Your task to perform on an android device: make emails show in primary in the gmail app Image 0: 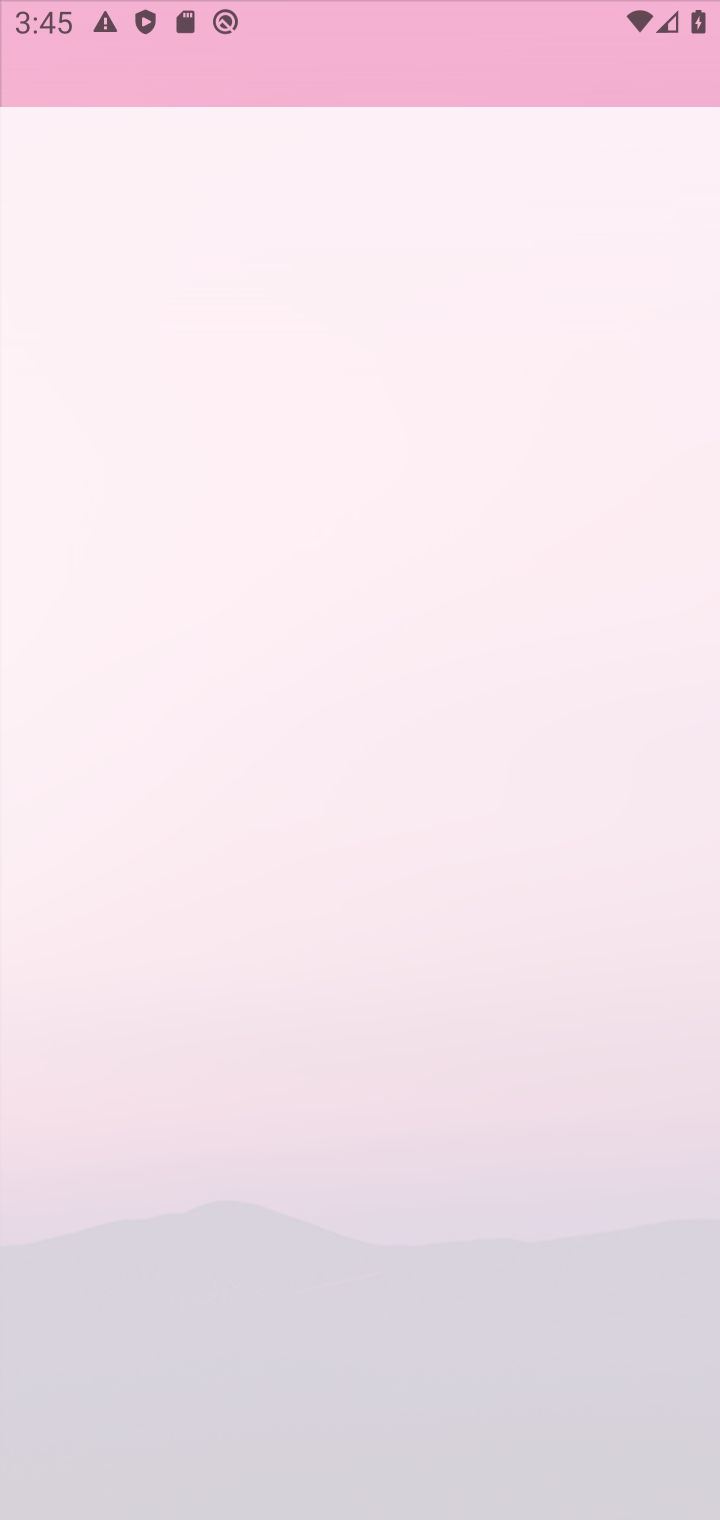
Step 0: press home button
Your task to perform on an android device: make emails show in primary in the gmail app Image 1: 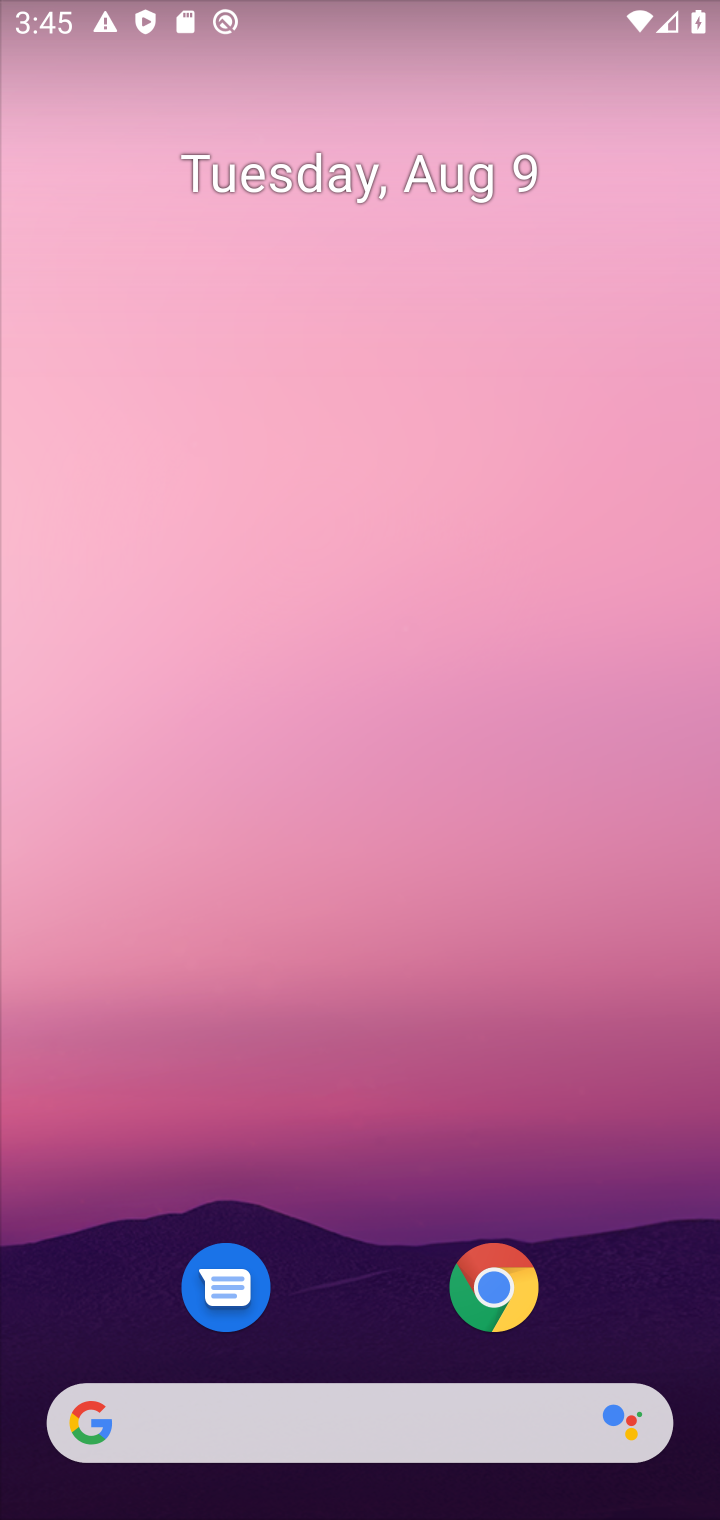
Step 1: drag from (374, 1158) to (438, 200)
Your task to perform on an android device: make emails show in primary in the gmail app Image 2: 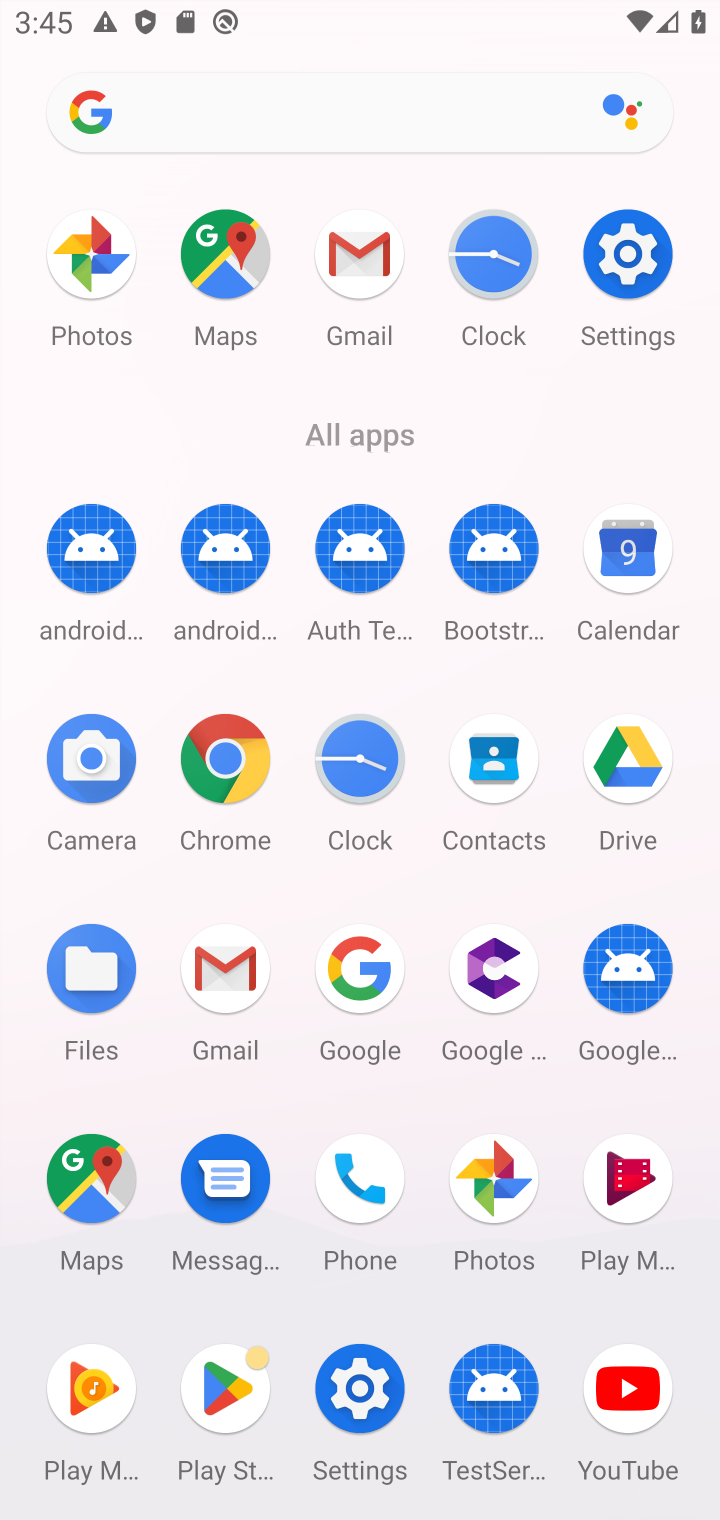
Step 2: click (224, 979)
Your task to perform on an android device: make emails show in primary in the gmail app Image 3: 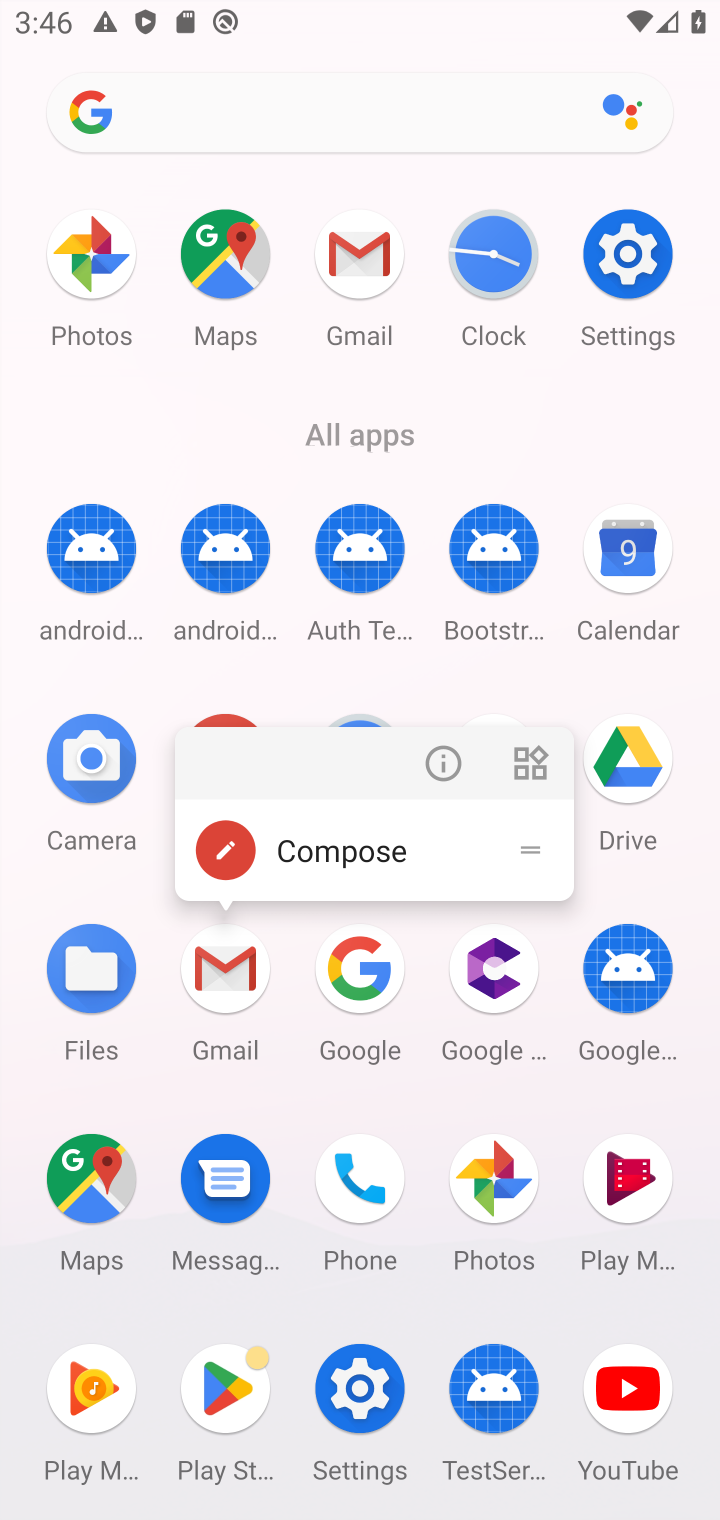
Step 3: click (260, 1005)
Your task to perform on an android device: make emails show in primary in the gmail app Image 4: 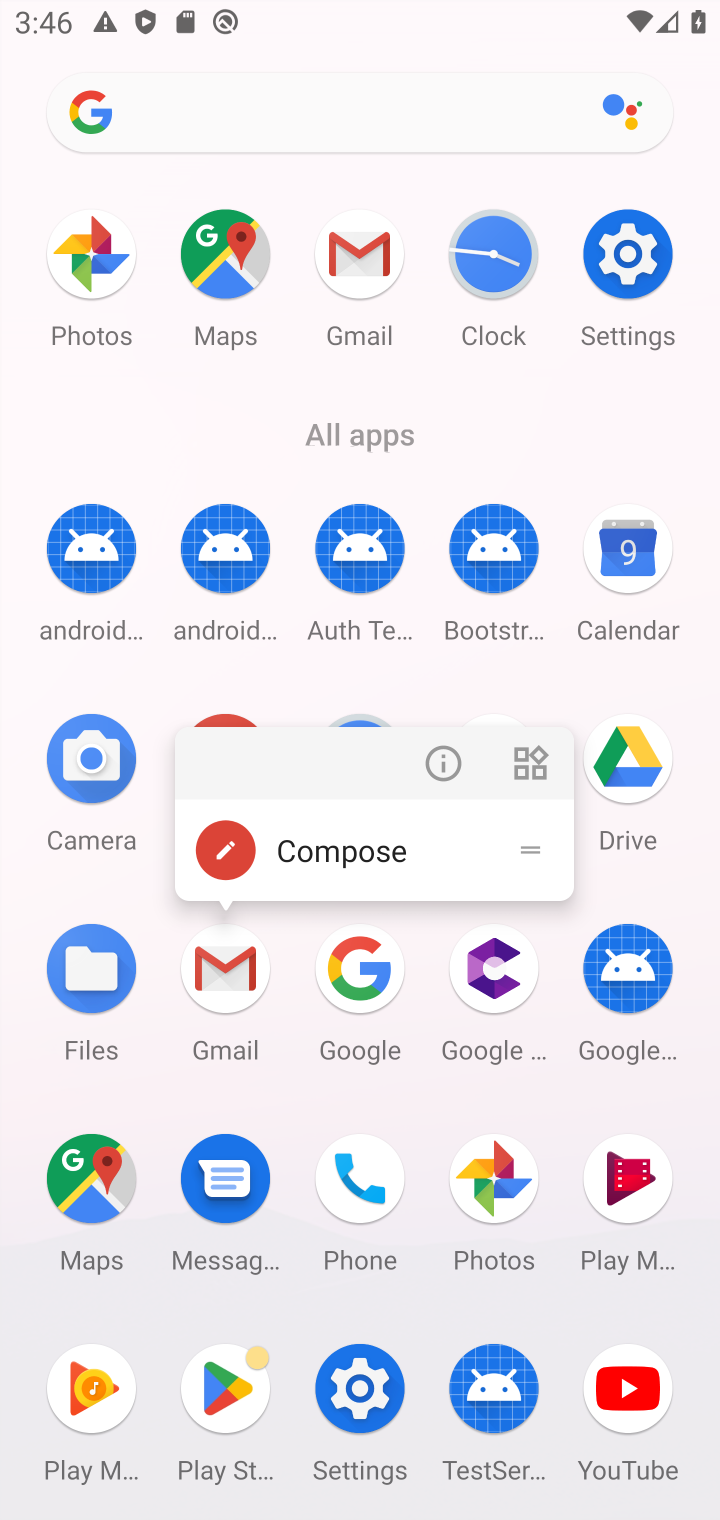
Step 4: click (258, 992)
Your task to perform on an android device: make emails show in primary in the gmail app Image 5: 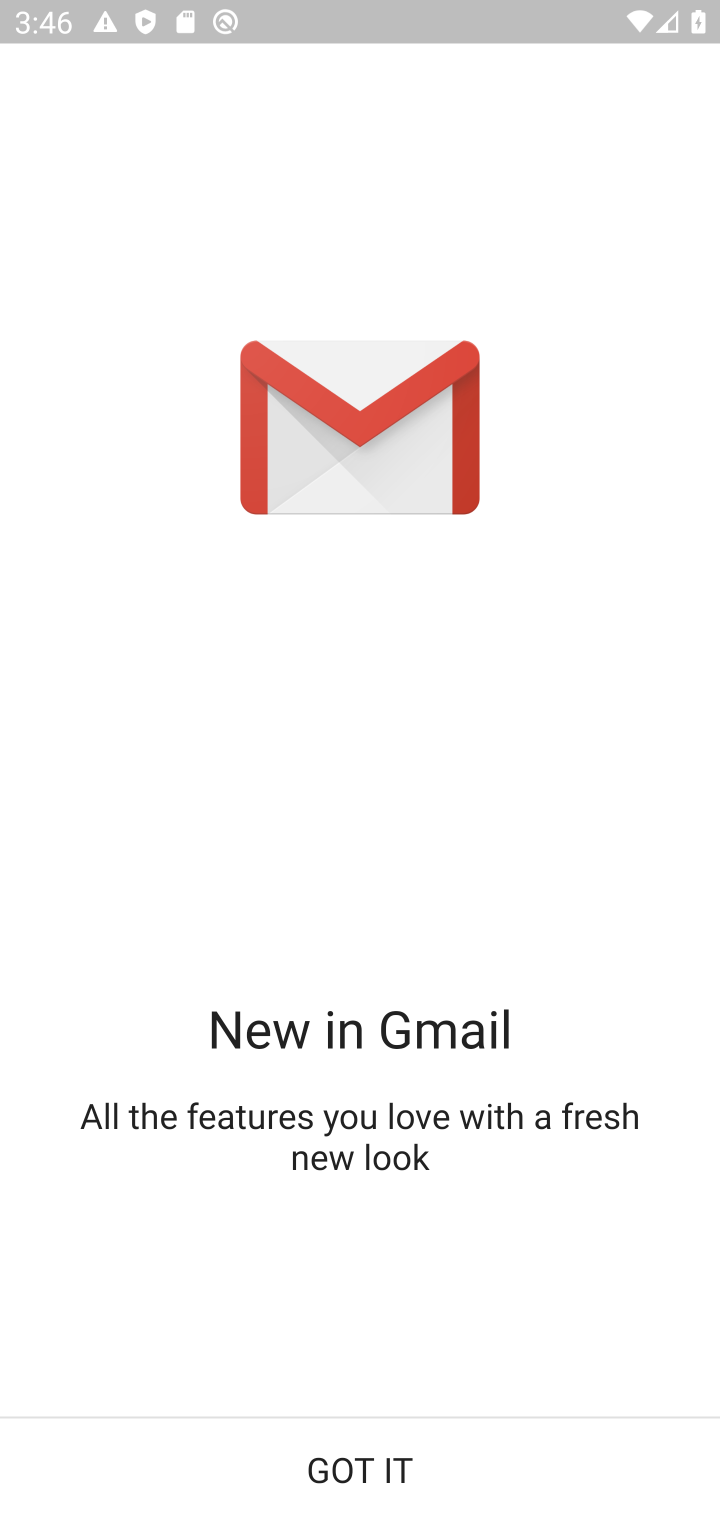
Step 5: click (367, 1450)
Your task to perform on an android device: make emails show in primary in the gmail app Image 6: 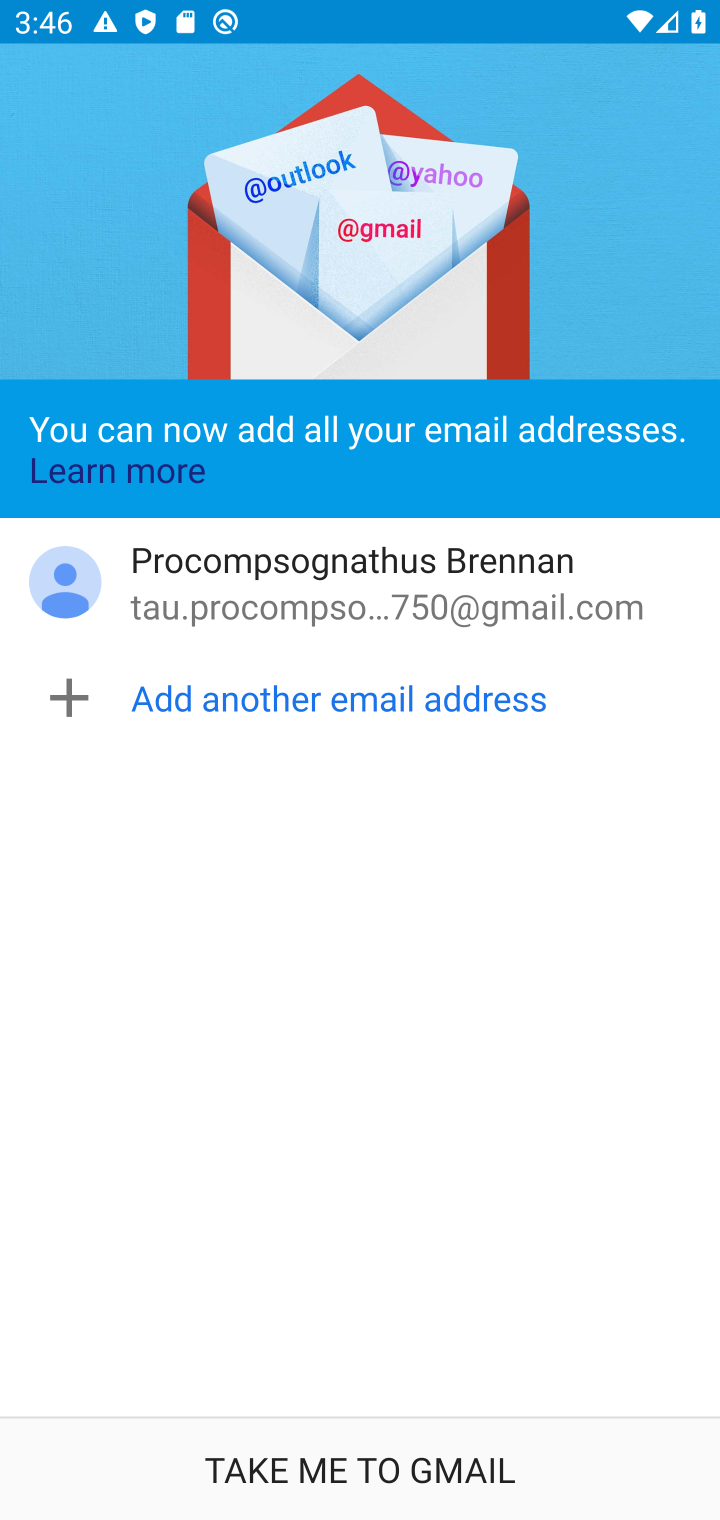
Step 6: click (375, 1460)
Your task to perform on an android device: make emails show in primary in the gmail app Image 7: 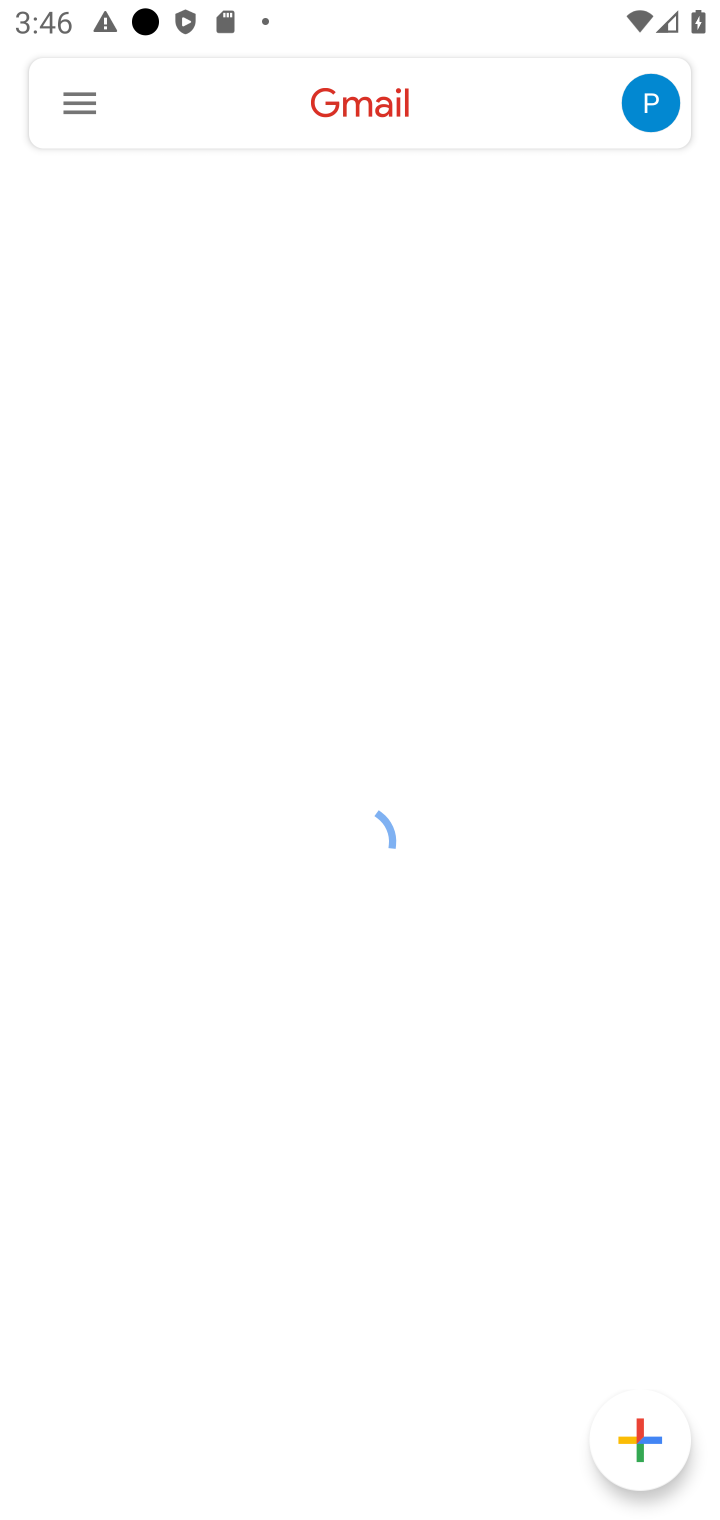
Step 7: task complete